Your task to perform on an android device: open the mobile data screen to see how much data has been used Image 0: 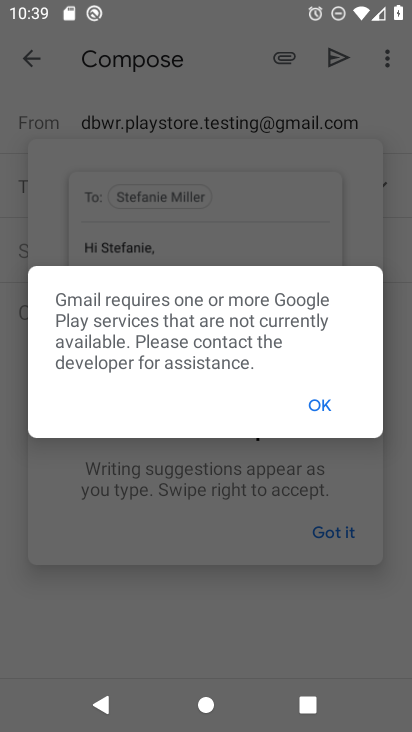
Step 0: press home button
Your task to perform on an android device: open the mobile data screen to see how much data has been used Image 1: 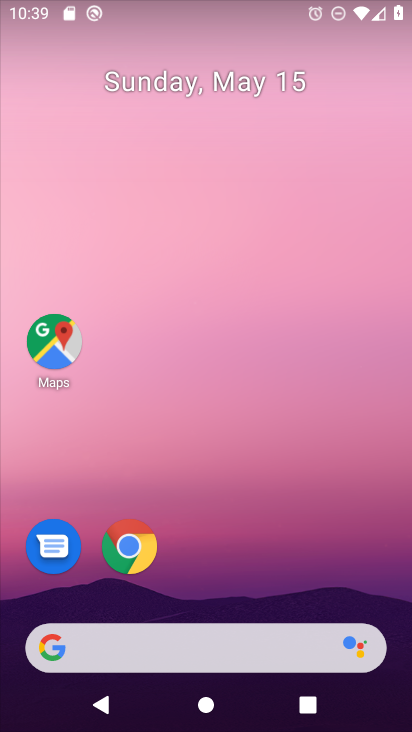
Step 1: drag from (318, 557) to (348, 170)
Your task to perform on an android device: open the mobile data screen to see how much data has been used Image 2: 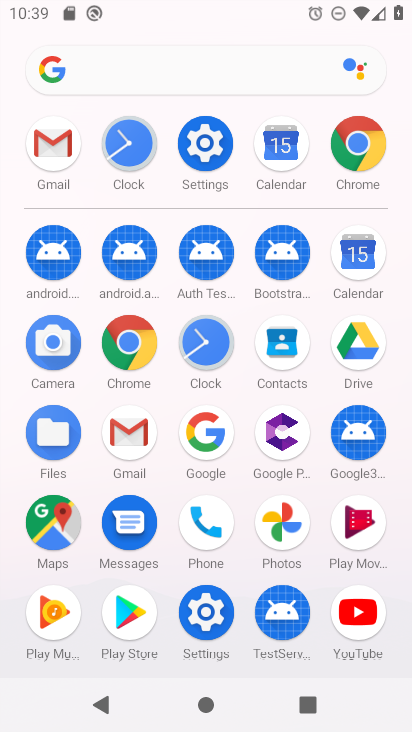
Step 2: click (197, 146)
Your task to perform on an android device: open the mobile data screen to see how much data has been used Image 3: 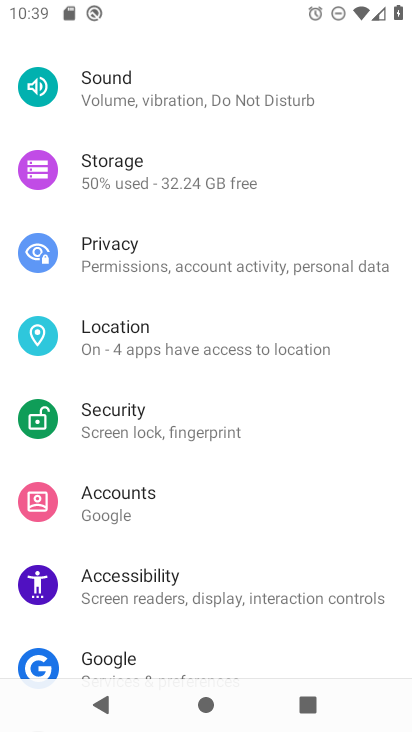
Step 3: drag from (209, 181) to (150, 597)
Your task to perform on an android device: open the mobile data screen to see how much data has been used Image 4: 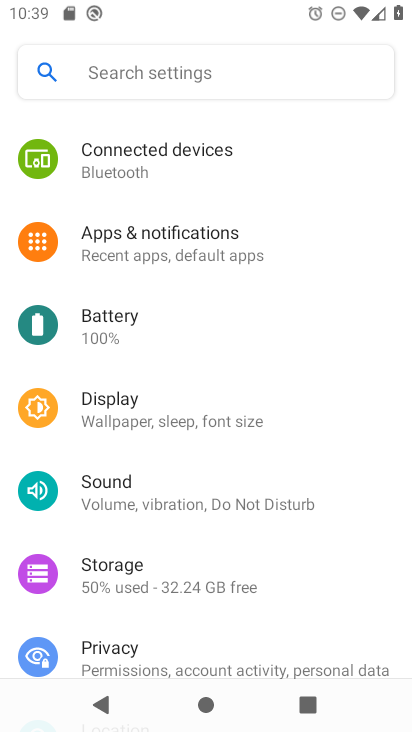
Step 4: drag from (176, 156) to (130, 498)
Your task to perform on an android device: open the mobile data screen to see how much data has been used Image 5: 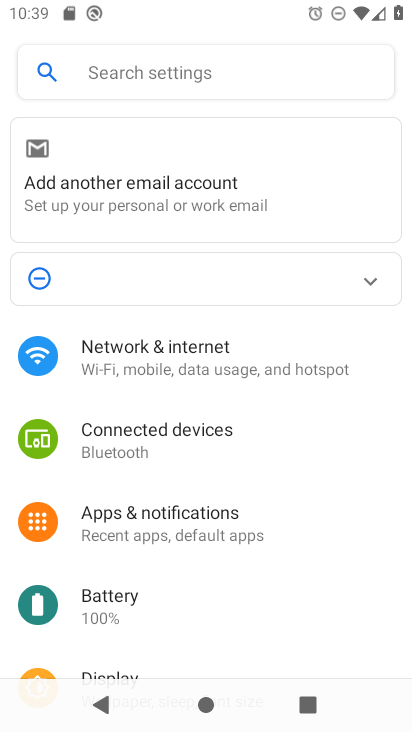
Step 5: click (179, 346)
Your task to perform on an android device: open the mobile data screen to see how much data has been used Image 6: 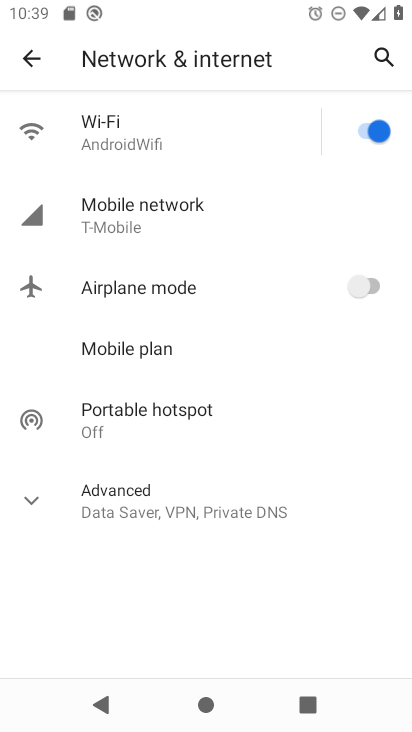
Step 6: click (198, 220)
Your task to perform on an android device: open the mobile data screen to see how much data has been used Image 7: 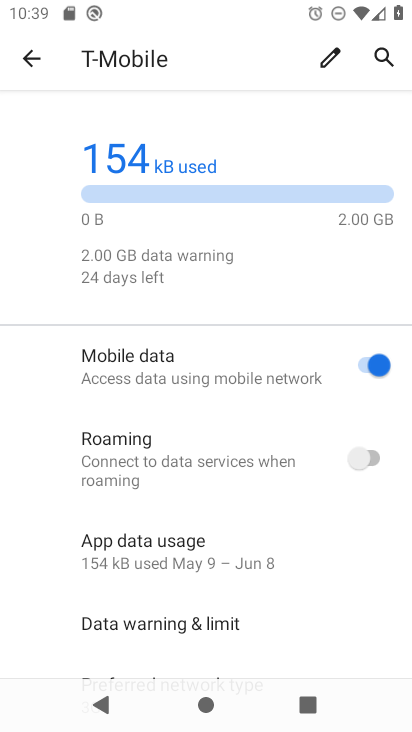
Step 7: task complete